Your task to perform on an android device: Go to wifi settings Image 0: 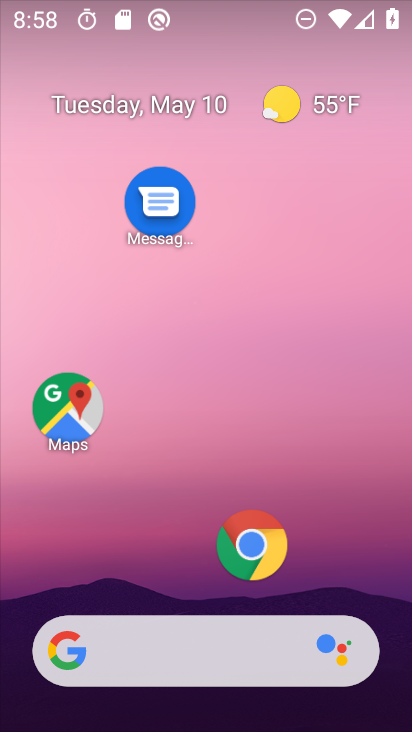
Step 0: drag from (185, 576) to (237, 115)
Your task to perform on an android device: Go to wifi settings Image 1: 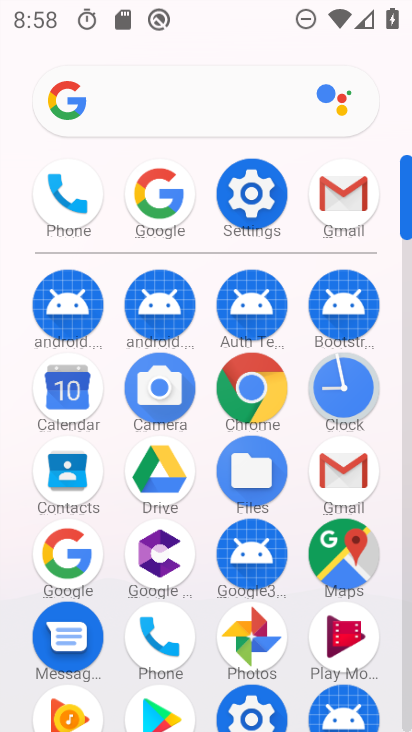
Step 1: click (246, 162)
Your task to perform on an android device: Go to wifi settings Image 2: 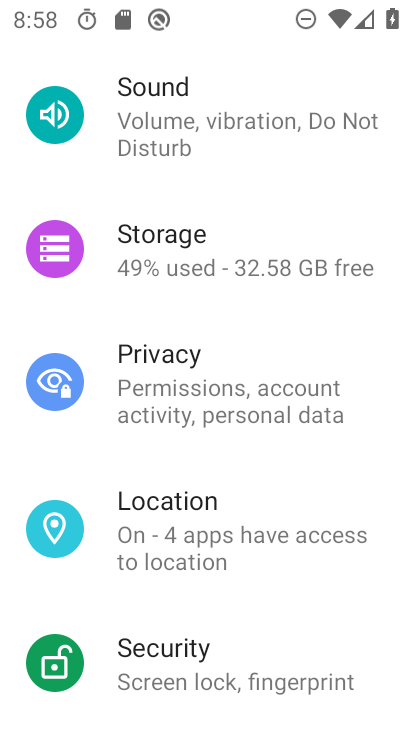
Step 2: drag from (246, 162) to (275, 569)
Your task to perform on an android device: Go to wifi settings Image 3: 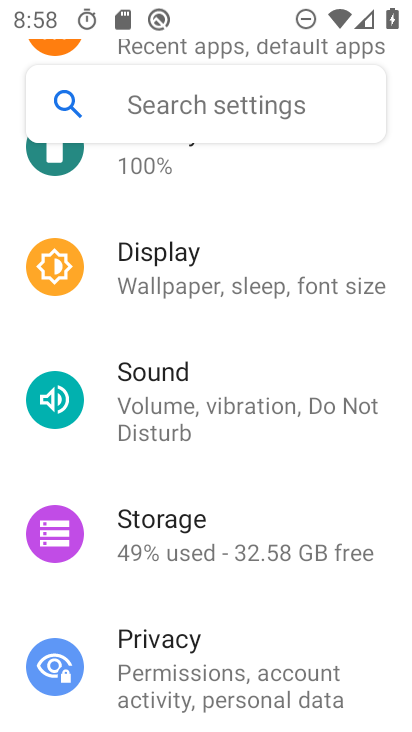
Step 3: drag from (195, 174) to (238, 600)
Your task to perform on an android device: Go to wifi settings Image 4: 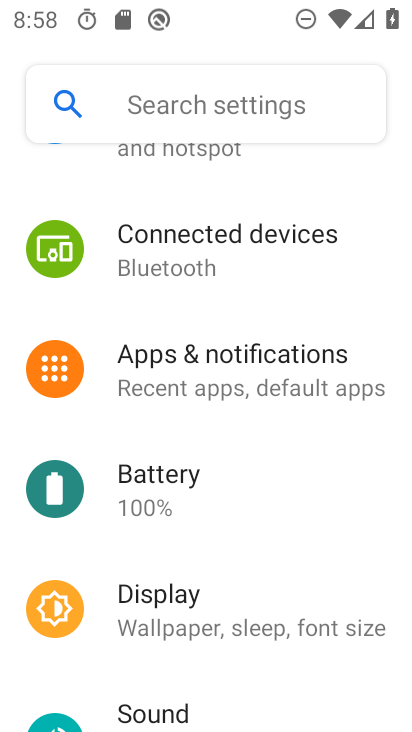
Step 4: drag from (192, 271) to (198, 650)
Your task to perform on an android device: Go to wifi settings Image 5: 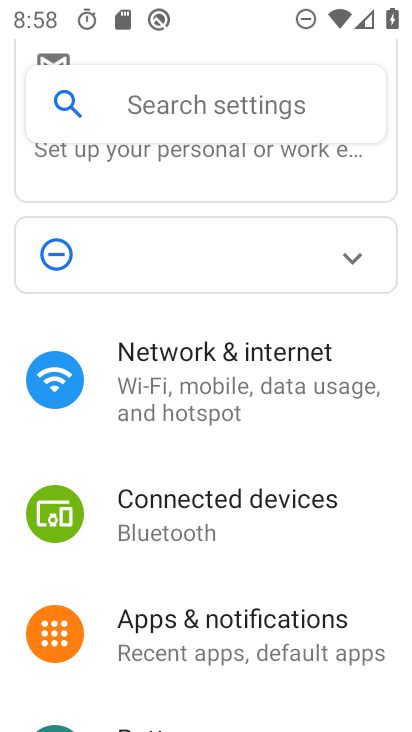
Step 5: click (151, 358)
Your task to perform on an android device: Go to wifi settings Image 6: 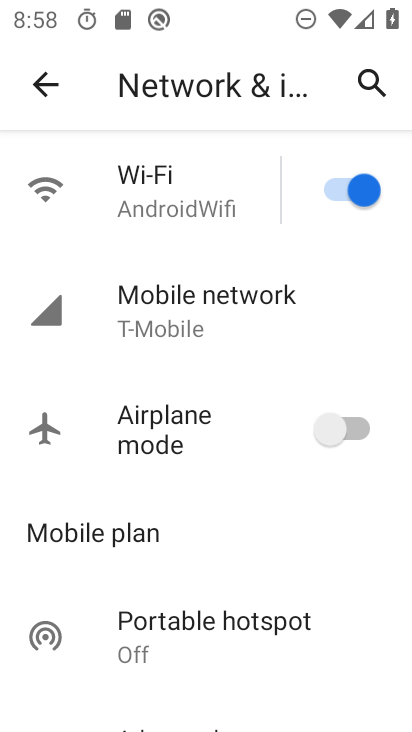
Step 6: click (116, 189)
Your task to perform on an android device: Go to wifi settings Image 7: 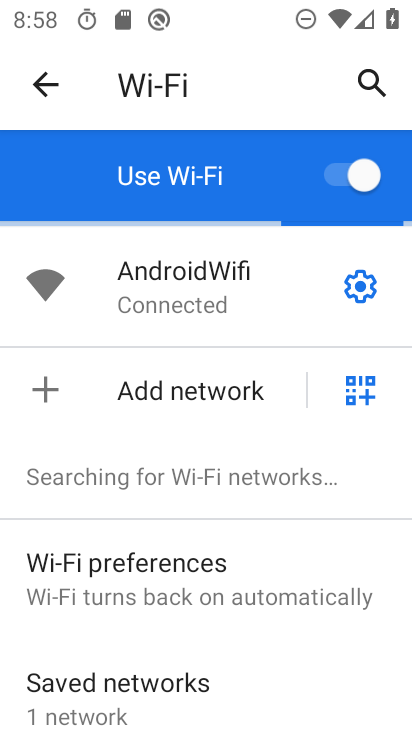
Step 7: task complete